Your task to perform on an android device: check the backup settings in the google photos Image 0: 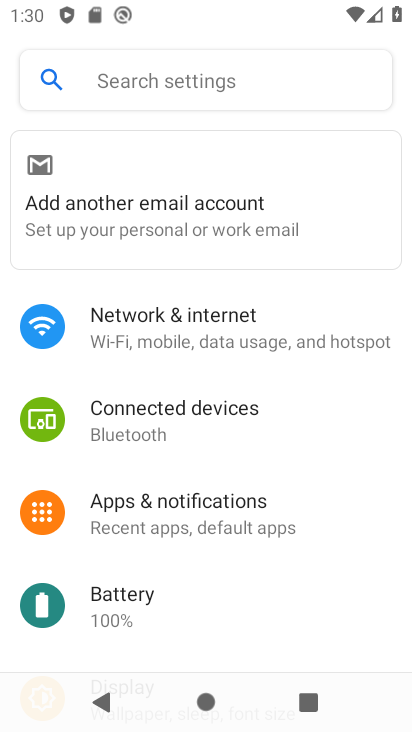
Step 0: press home button
Your task to perform on an android device: check the backup settings in the google photos Image 1: 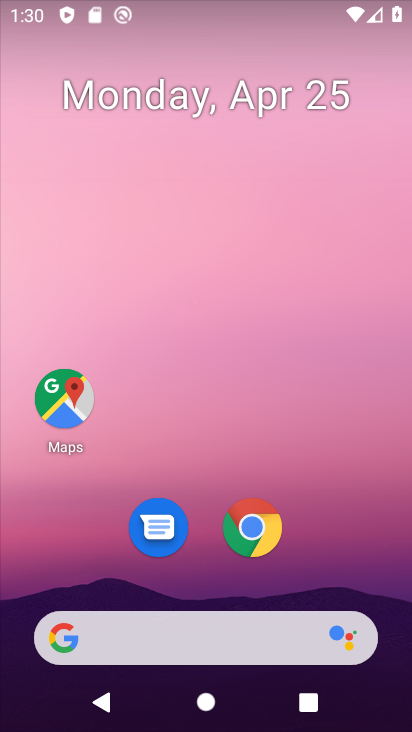
Step 1: drag from (387, 640) to (314, 167)
Your task to perform on an android device: check the backup settings in the google photos Image 2: 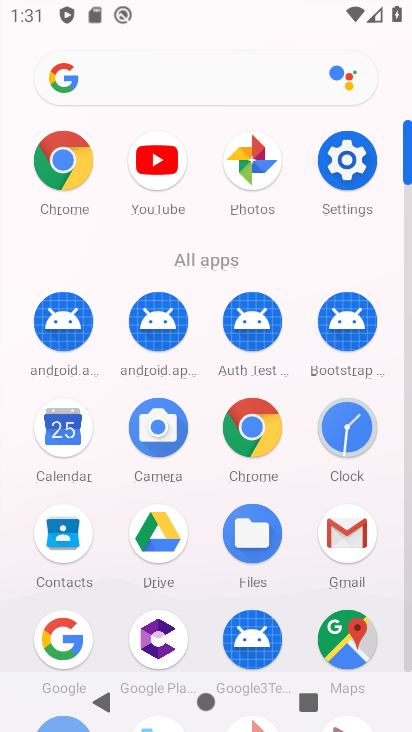
Step 2: click (263, 173)
Your task to perform on an android device: check the backup settings in the google photos Image 3: 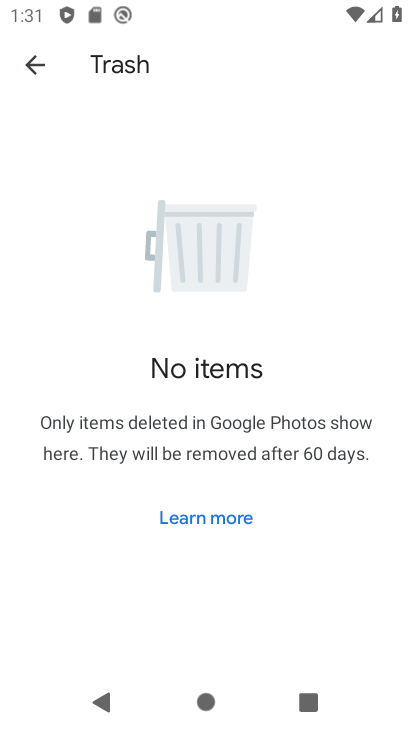
Step 3: press back button
Your task to perform on an android device: check the backup settings in the google photos Image 4: 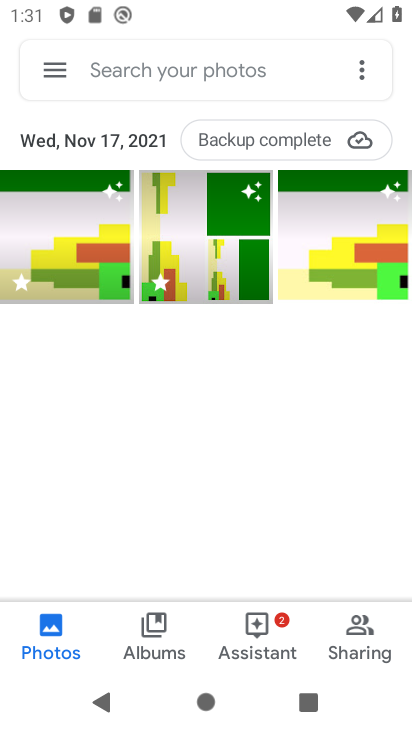
Step 4: click (38, 72)
Your task to perform on an android device: check the backup settings in the google photos Image 5: 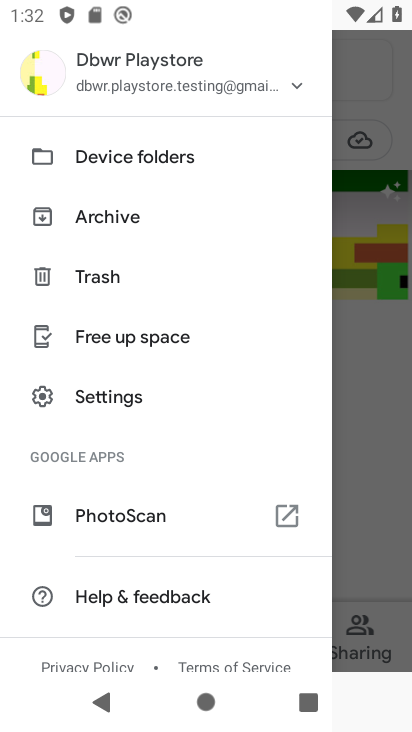
Step 5: click (125, 402)
Your task to perform on an android device: check the backup settings in the google photos Image 6: 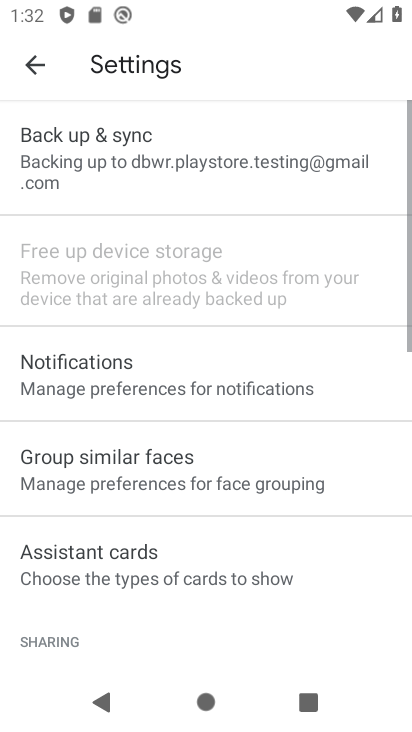
Step 6: click (160, 178)
Your task to perform on an android device: check the backup settings in the google photos Image 7: 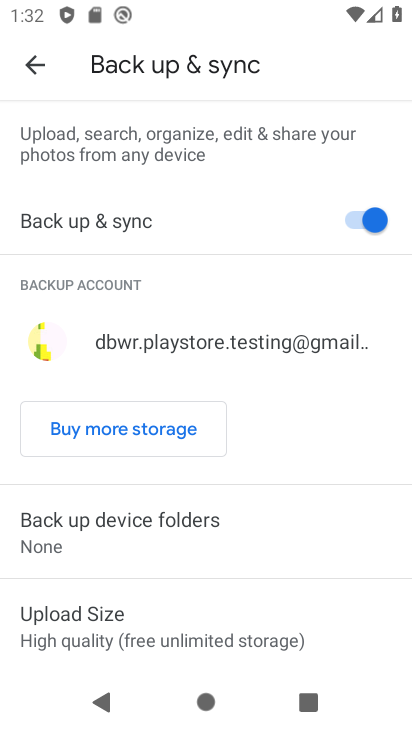
Step 7: task complete